Your task to perform on an android device: Go to wifi settings Image 0: 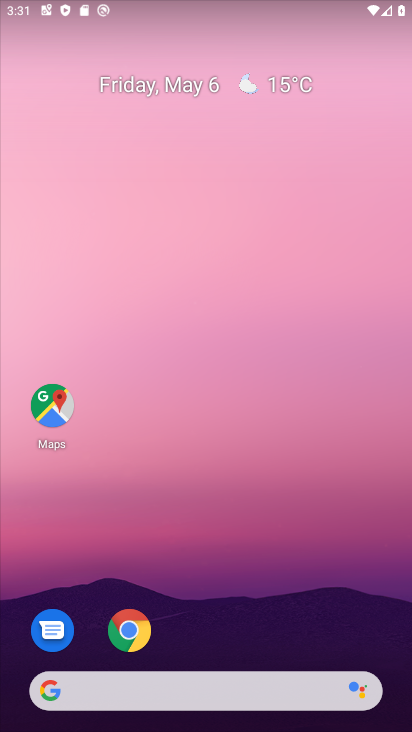
Step 0: drag from (148, 11) to (150, 643)
Your task to perform on an android device: Go to wifi settings Image 1: 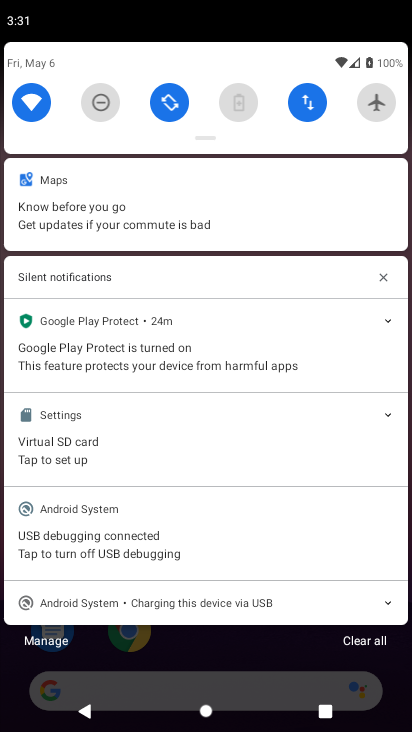
Step 1: click (29, 119)
Your task to perform on an android device: Go to wifi settings Image 2: 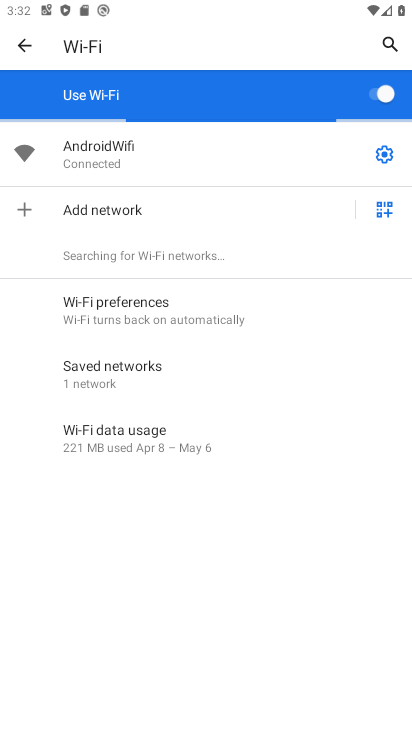
Step 2: task complete